Your task to perform on an android device: add a contact Image 0: 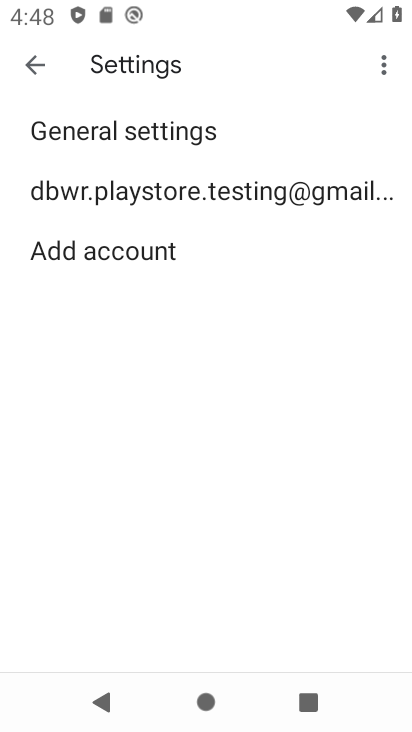
Step 0: press home button
Your task to perform on an android device: add a contact Image 1: 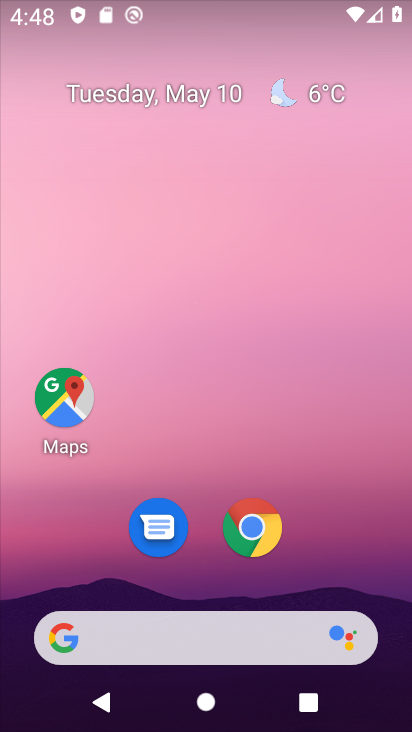
Step 1: drag from (334, 585) to (360, 2)
Your task to perform on an android device: add a contact Image 2: 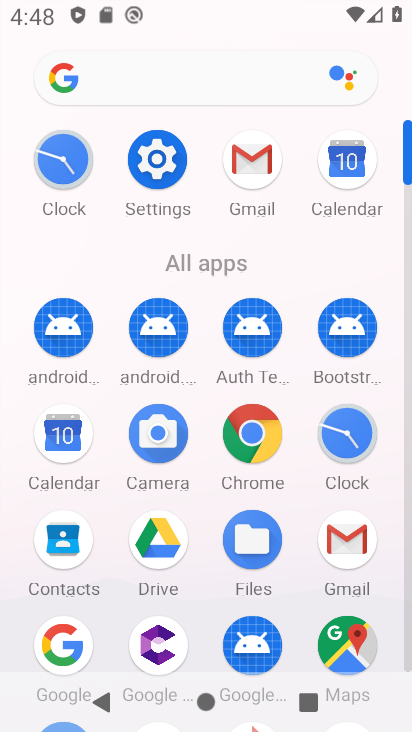
Step 2: click (82, 555)
Your task to perform on an android device: add a contact Image 3: 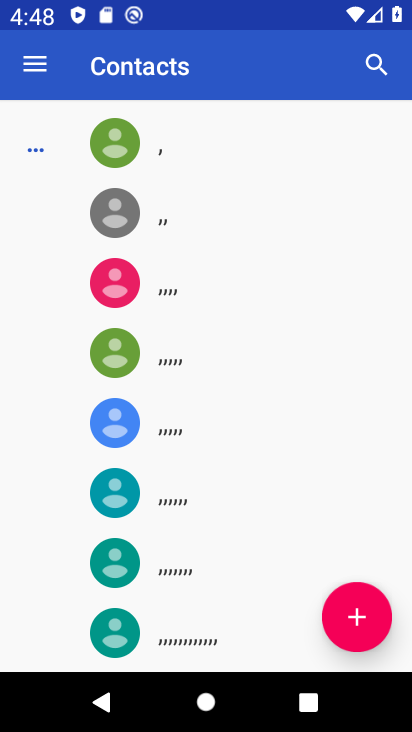
Step 3: click (372, 627)
Your task to perform on an android device: add a contact Image 4: 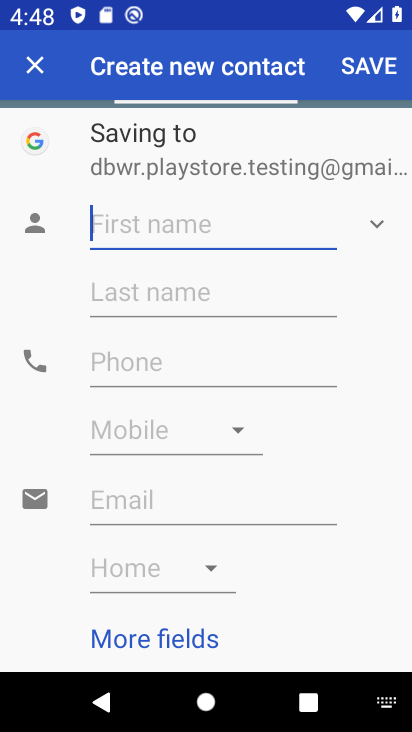
Step 4: type "uhjihyujkijikj"
Your task to perform on an android device: add a contact Image 5: 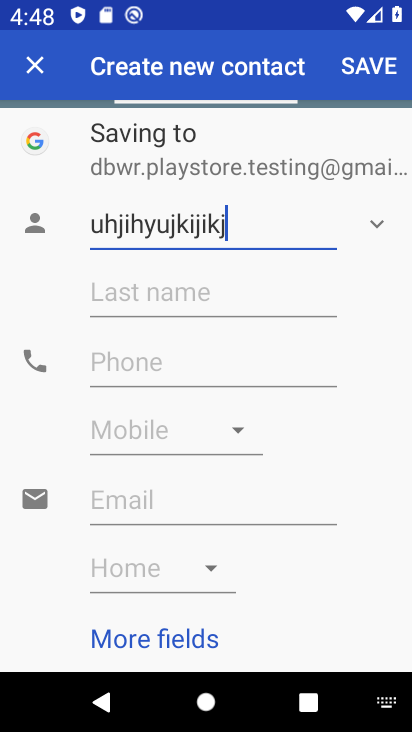
Step 5: click (139, 353)
Your task to perform on an android device: add a contact Image 6: 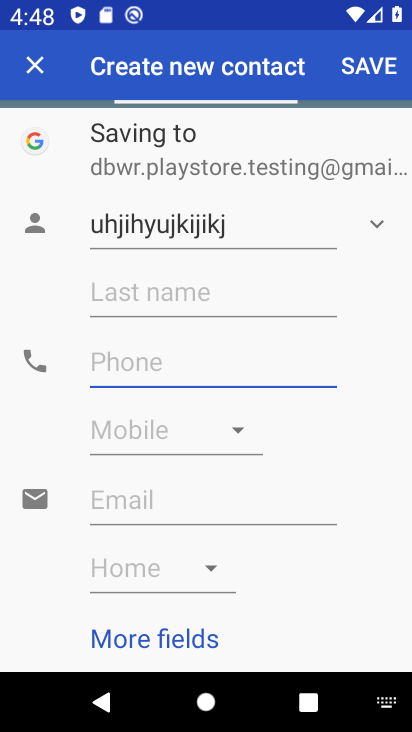
Step 6: type "6788990888"
Your task to perform on an android device: add a contact Image 7: 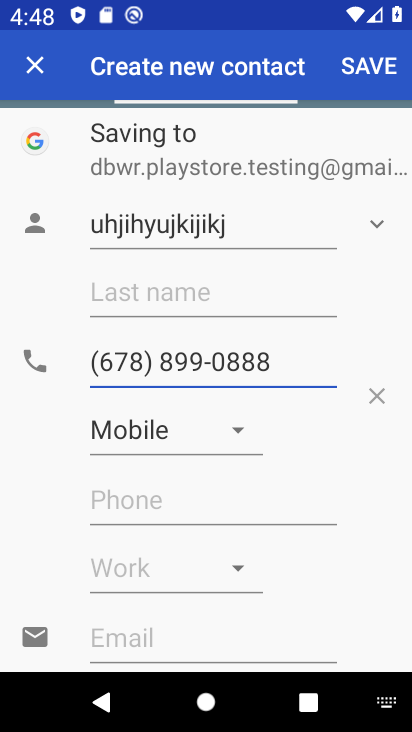
Step 7: click (362, 75)
Your task to perform on an android device: add a contact Image 8: 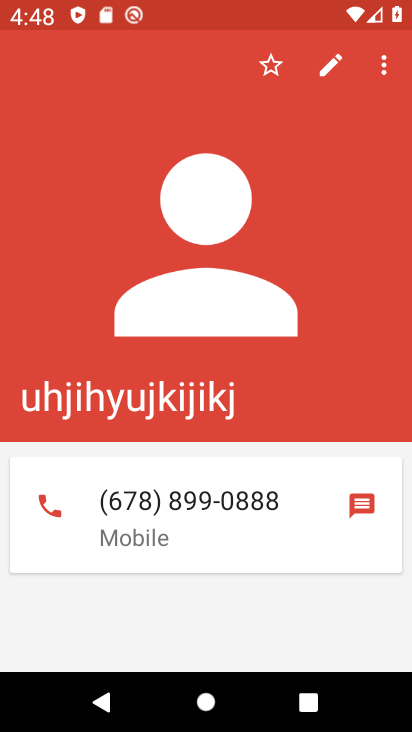
Step 8: task complete